Your task to perform on an android device: turn on bluetooth scan Image 0: 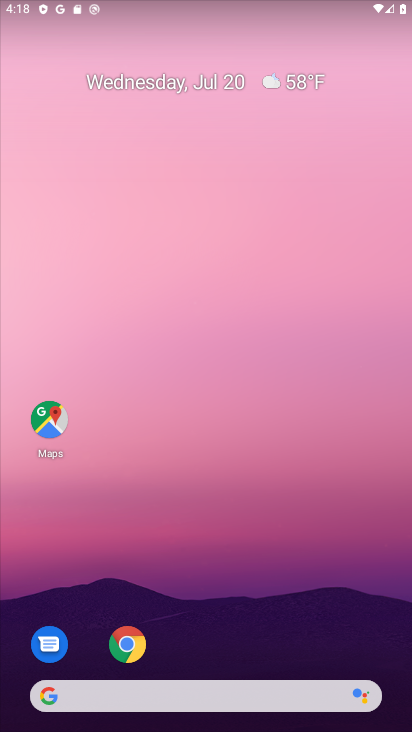
Step 0: drag from (201, 648) to (265, 75)
Your task to perform on an android device: turn on bluetooth scan Image 1: 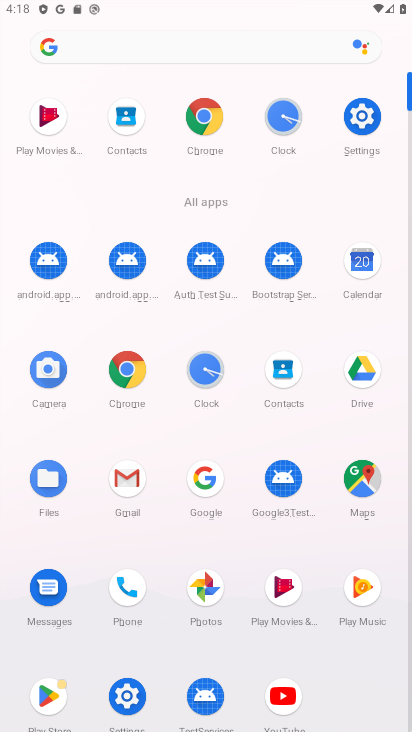
Step 1: click (370, 112)
Your task to perform on an android device: turn on bluetooth scan Image 2: 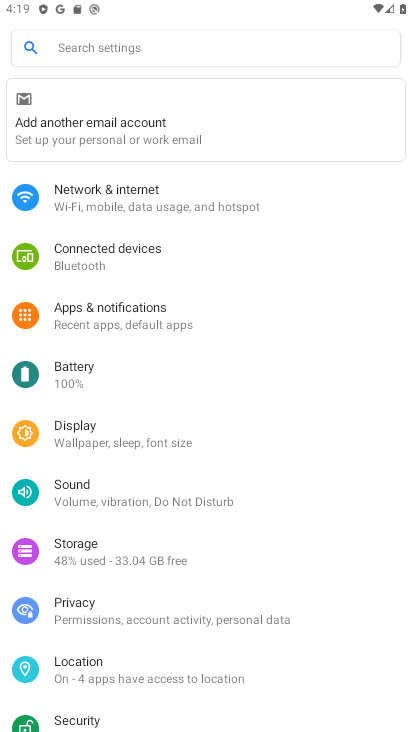
Step 2: click (80, 669)
Your task to perform on an android device: turn on bluetooth scan Image 3: 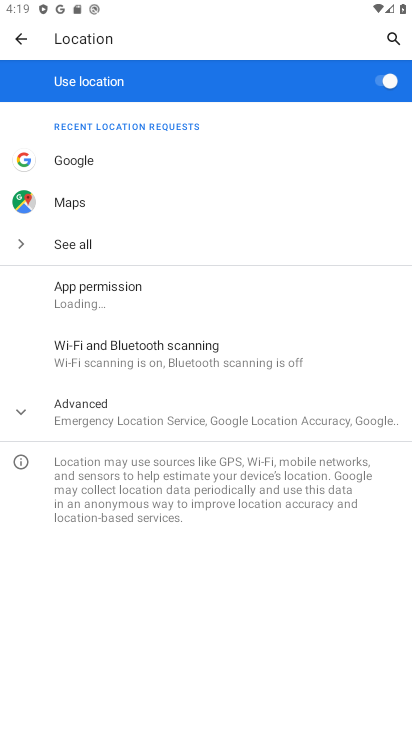
Step 3: click (123, 363)
Your task to perform on an android device: turn on bluetooth scan Image 4: 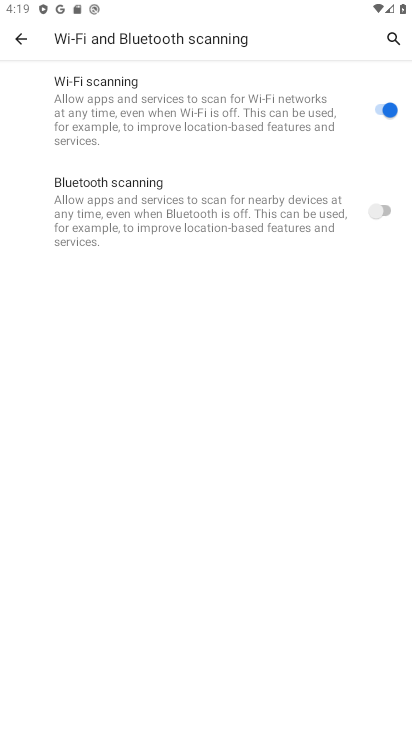
Step 4: click (382, 216)
Your task to perform on an android device: turn on bluetooth scan Image 5: 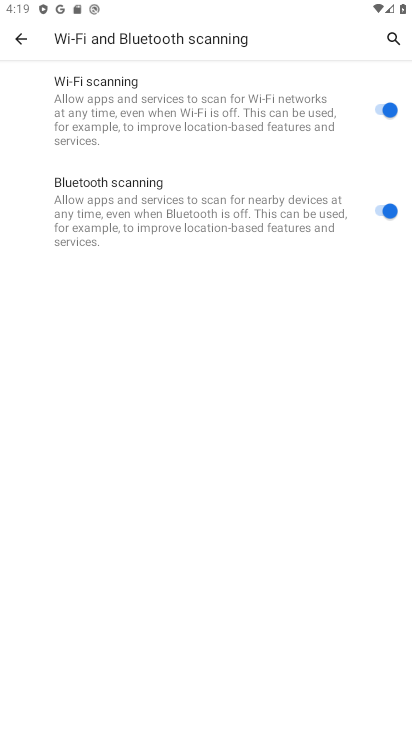
Step 5: task complete